Your task to perform on an android device: empty trash in the gmail app Image 0: 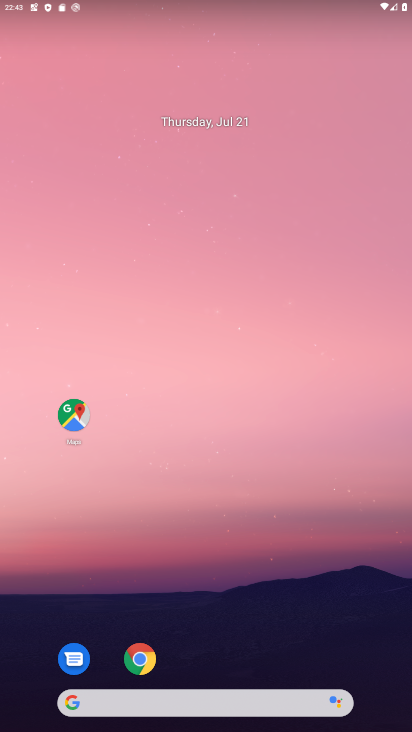
Step 0: drag from (266, 552) to (297, 1)
Your task to perform on an android device: empty trash in the gmail app Image 1: 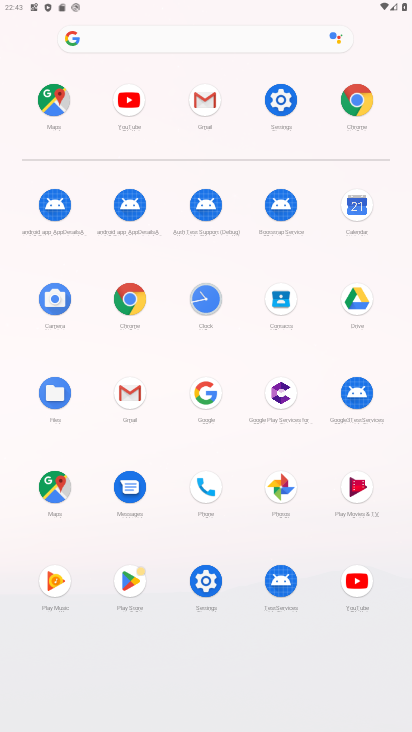
Step 1: click (203, 98)
Your task to perform on an android device: empty trash in the gmail app Image 2: 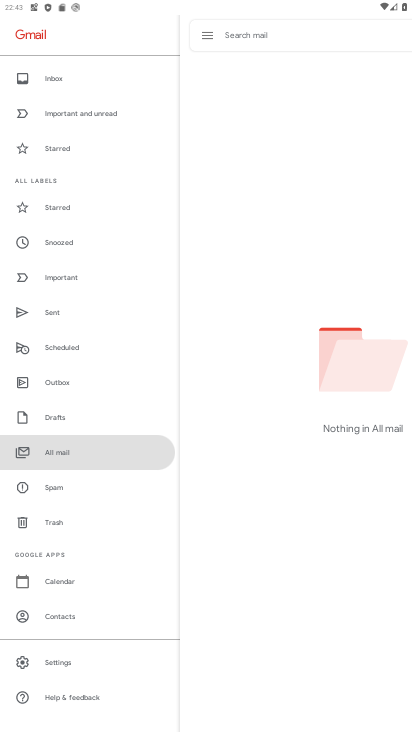
Step 2: click (52, 526)
Your task to perform on an android device: empty trash in the gmail app Image 3: 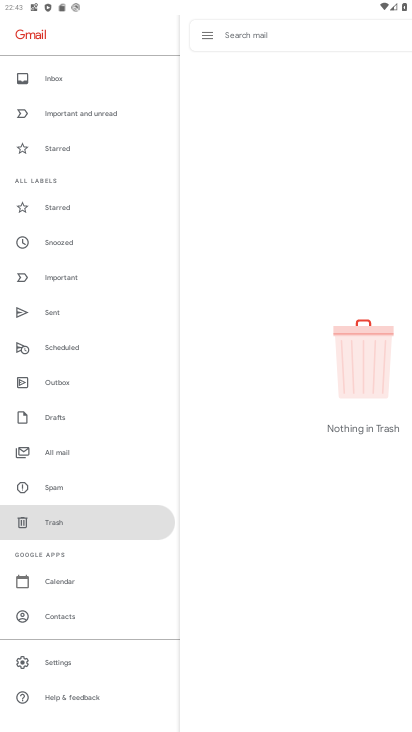
Step 3: task complete